Your task to perform on an android device: Go to Yahoo.com Image 0: 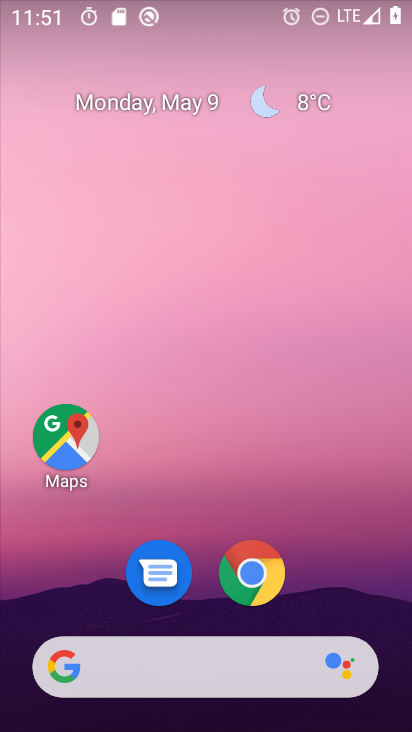
Step 0: click (247, 567)
Your task to perform on an android device: Go to Yahoo.com Image 1: 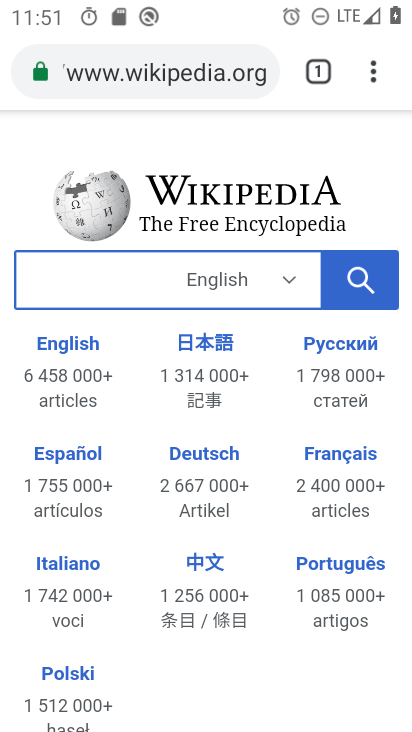
Step 1: click (212, 74)
Your task to perform on an android device: Go to Yahoo.com Image 2: 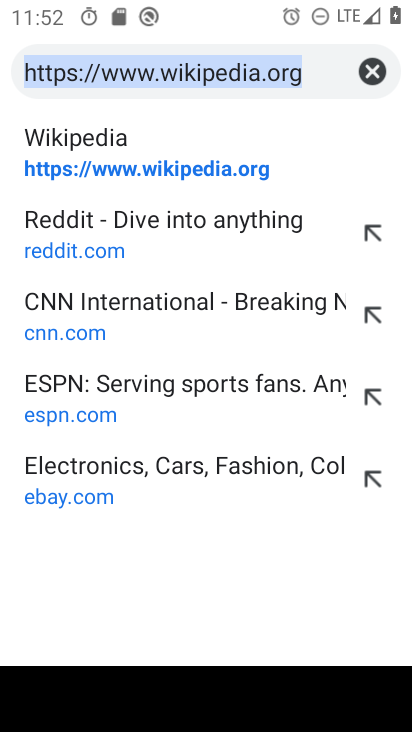
Step 2: type "yahoo.com"
Your task to perform on an android device: Go to Yahoo.com Image 3: 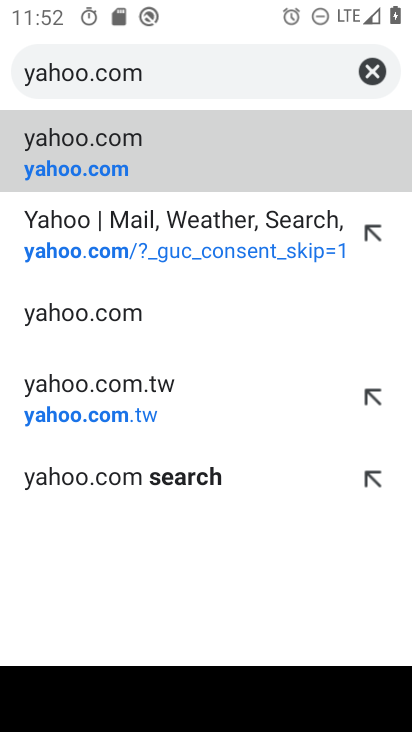
Step 3: click (71, 161)
Your task to perform on an android device: Go to Yahoo.com Image 4: 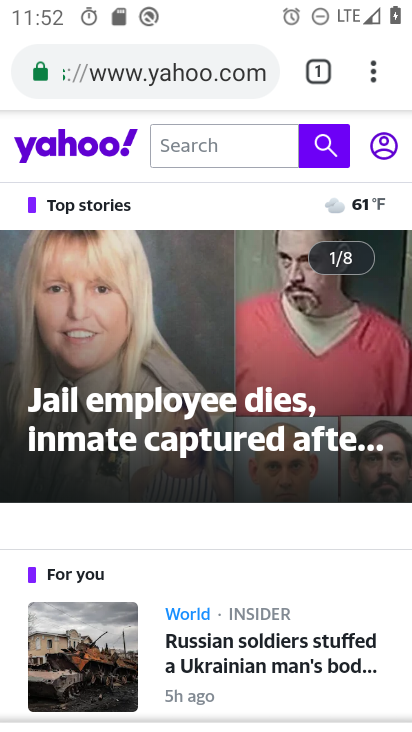
Step 4: task complete